Your task to perform on an android device: find photos in the google photos app Image 0: 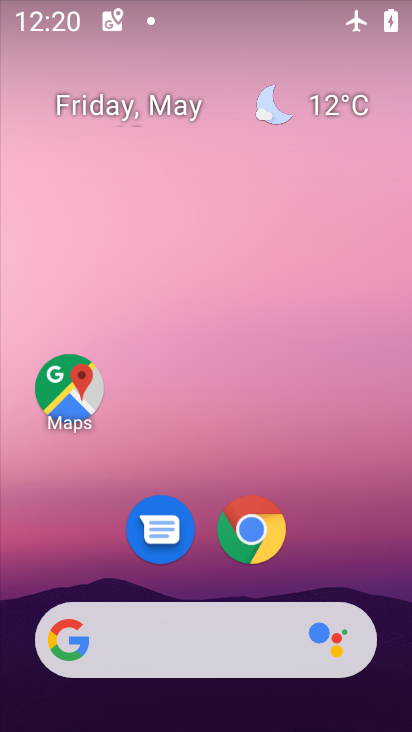
Step 0: drag from (303, 524) to (280, 213)
Your task to perform on an android device: find photos in the google photos app Image 1: 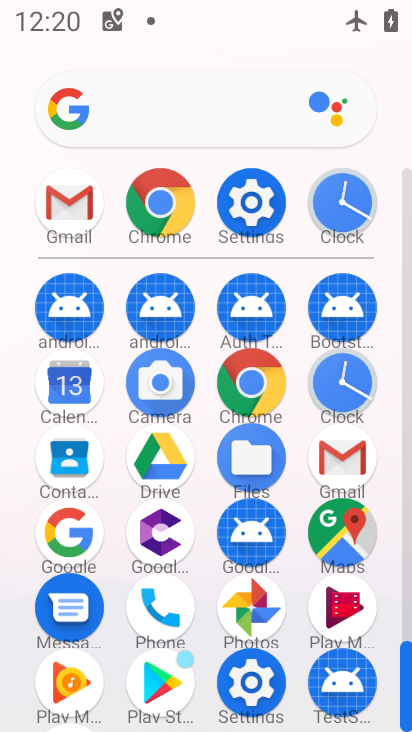
Step 1: click (237, 603)
Your task to perform on an android device: find photos in the google photos app Image 2: 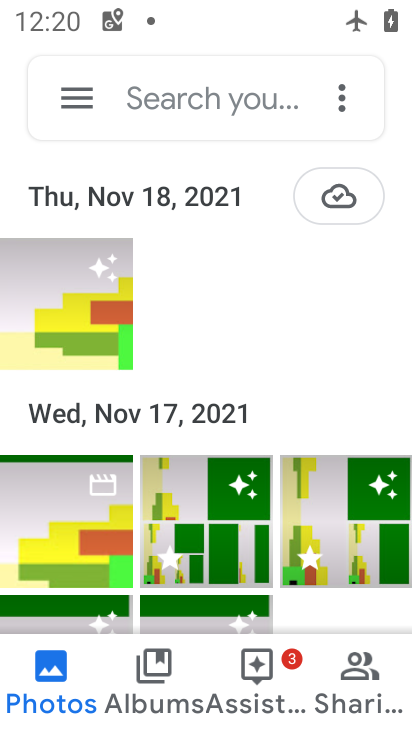
Step 2: drag from (213, 459) to (247, 253)
Your task to perform on an android device: find photos in the google photos app Image 3: 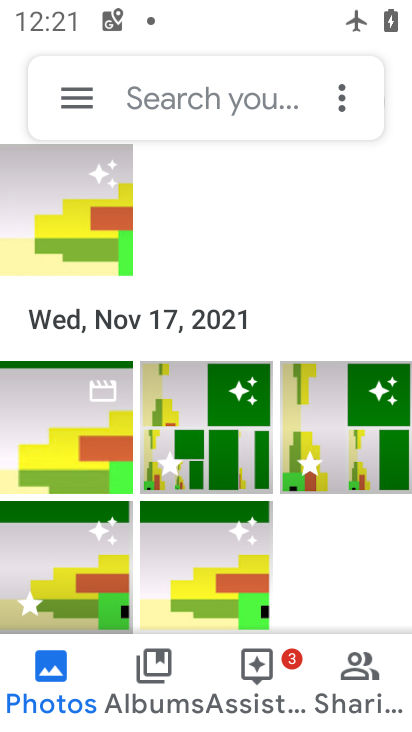
Step 3: click (200, 416)
Your task to perform on an android device: find photos in the google photos app Image 4: 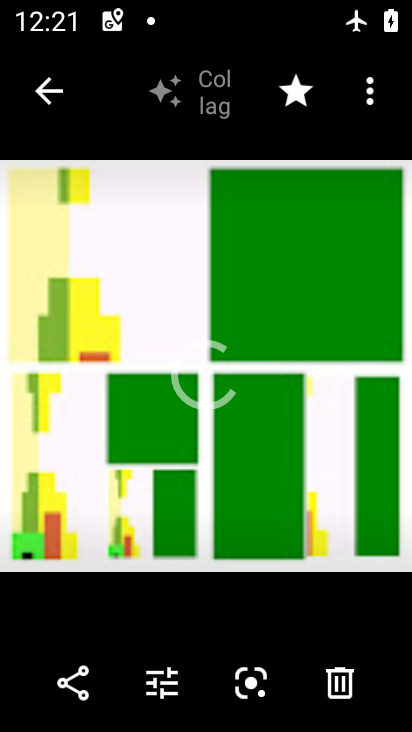
Step 4: click (49, 90)
Your task to perform on an android device: find photos in the google photos app Image 5: 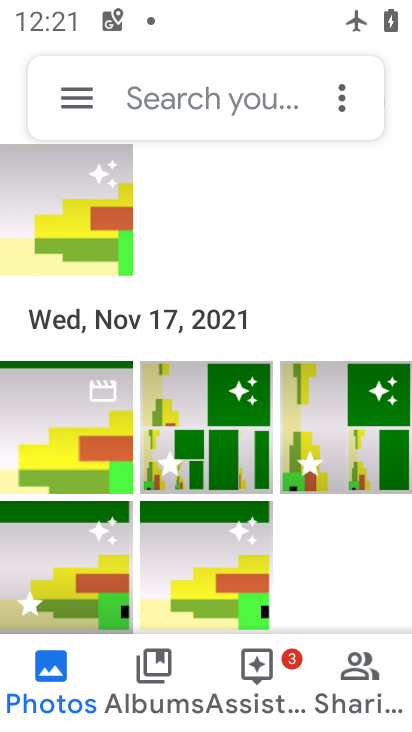
Step 5: task complete